Your task to perform on an android device: Open settings on Google Maps Image 0: 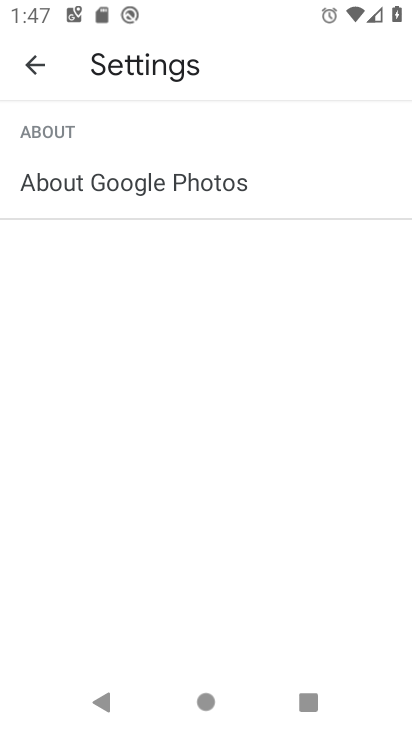
Step 0: press home button
Your task to perform on an android device: Open settings on Google Maps Image 1: 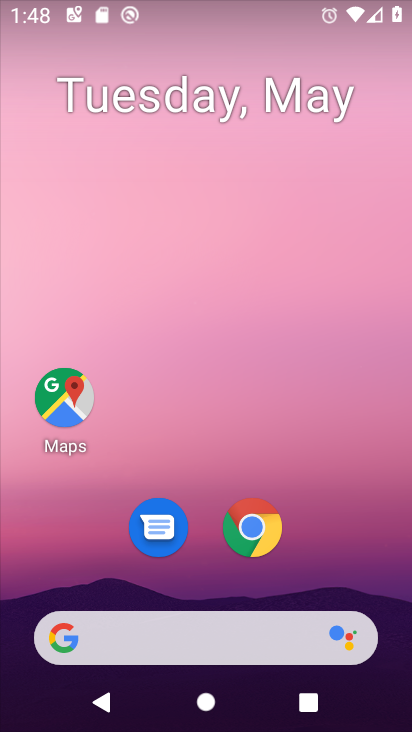
Step 1: click (71, 408)
Your task to perform on an android device: Open settings on Google Maps Image 2: 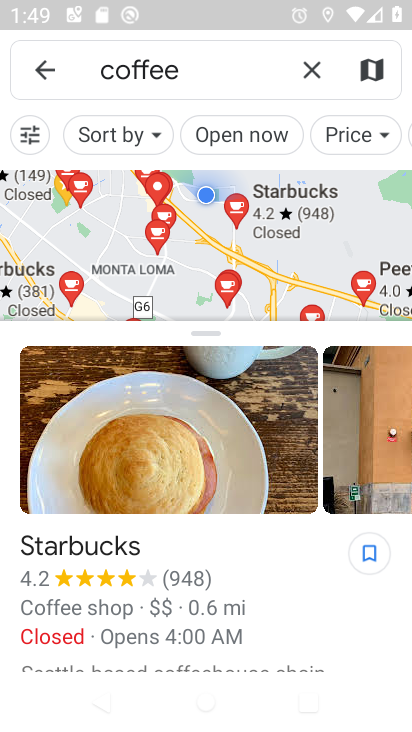
Step 2: click (42, 78)
Your task to perform on an android device: Open settings on Google Maps Image 3: 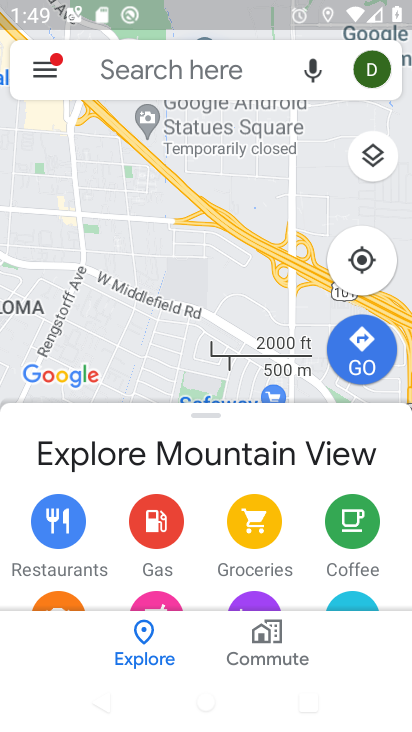
Step 3: click (43, 72)
Your task to perform on an android device: Open settings on Google Maps Image 4: 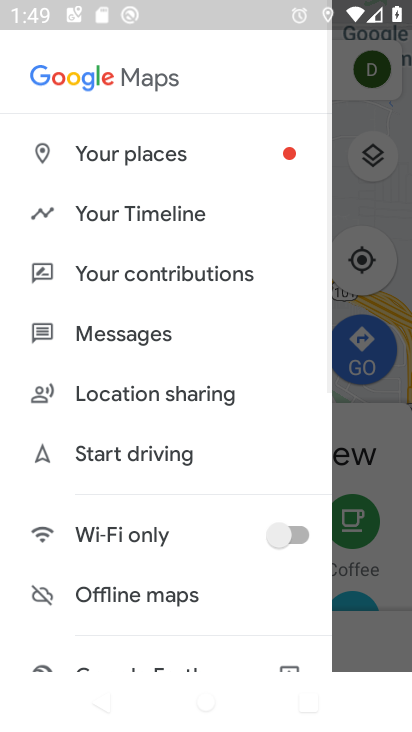
Step 4: drag from (155, 569) to (190, 43)
Your task to perform on an android device: Open settings on Google Maps Image 5: 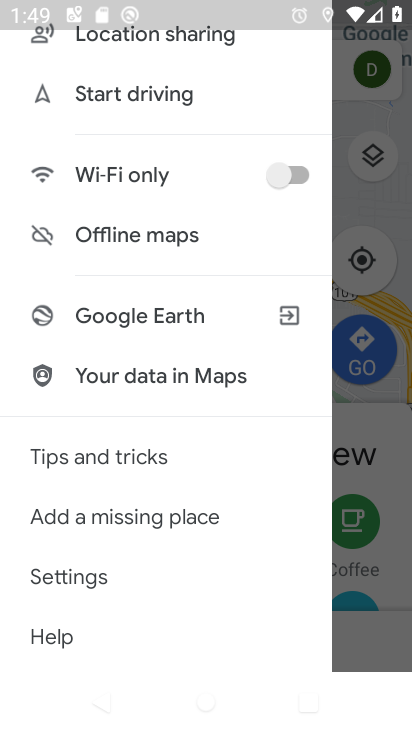
Step 5: click (72, 564)
Your task to perform on an android device: Open settings on Google Maps Image 6: 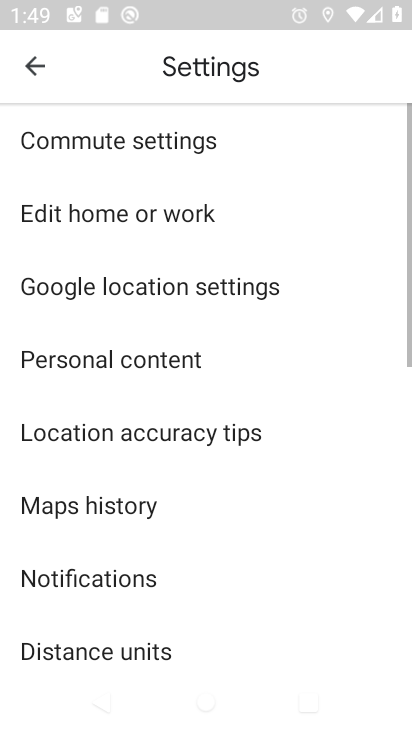
Step 6: task complete